Your task to perform on an android device: toggle translation in the chrome app Image 0: 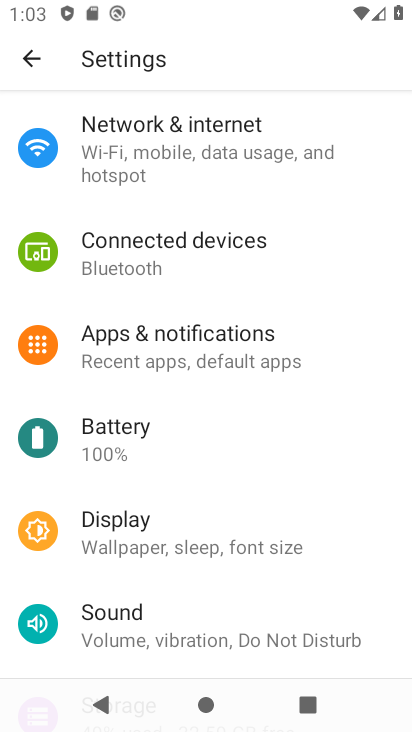
Step 0: press home button
Your task to perform on an android device: toggle translation in the chrome app Image 1: 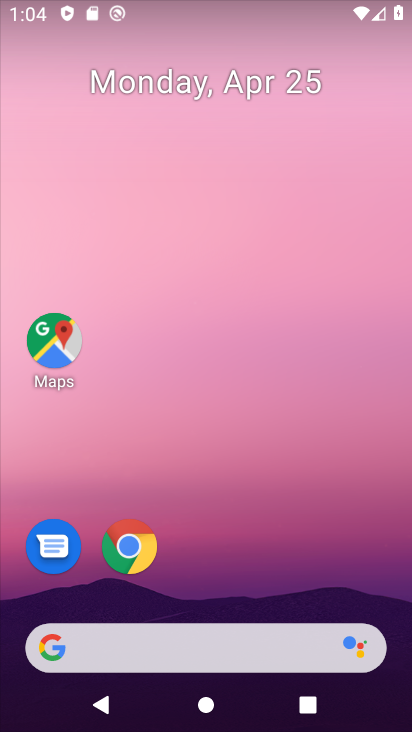
Step 1: drag from (182, 607) to (253, 23)
Your task to perform on an android device: toggle translation in the chrome app Image 2: 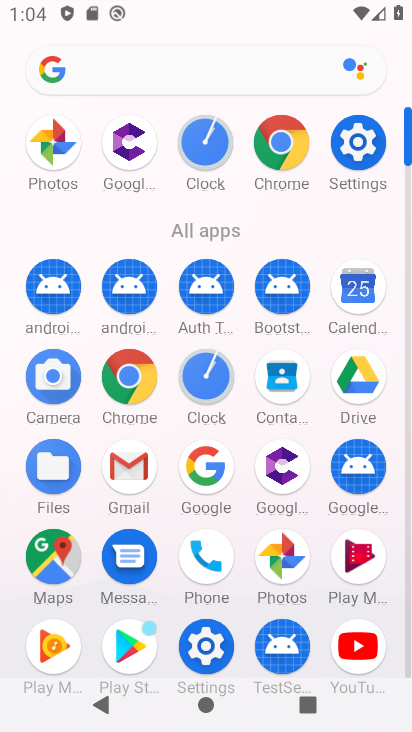
Step 2: click (137, 375)
Your task to perform on an android device: toggle translation in the chrome app Image 3: 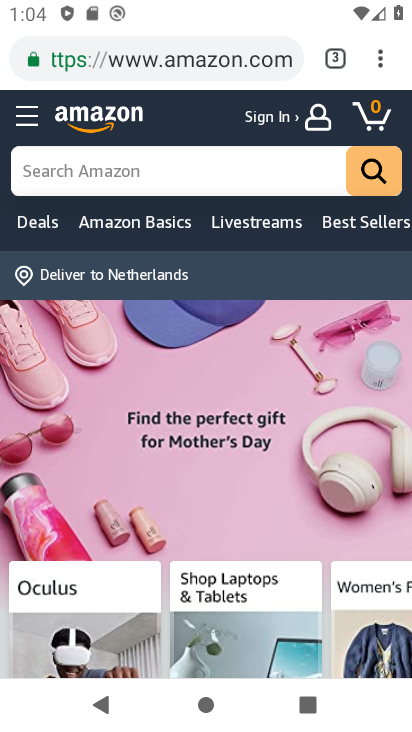
Step 3: drag from (384, 44) to (197, 583)
Your task to perform on an android device: toggle translation in the chrome app Image 4: 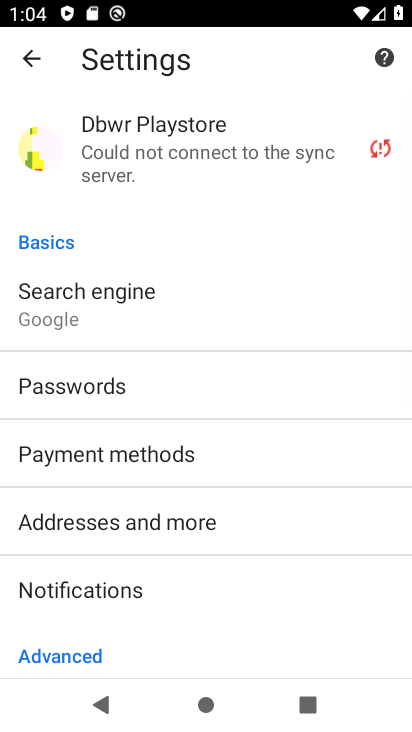
Step 4: drag from (148, 576) to (144, 18)
Your task to perform on an android device: toggle translation in the chrome app Image 5: 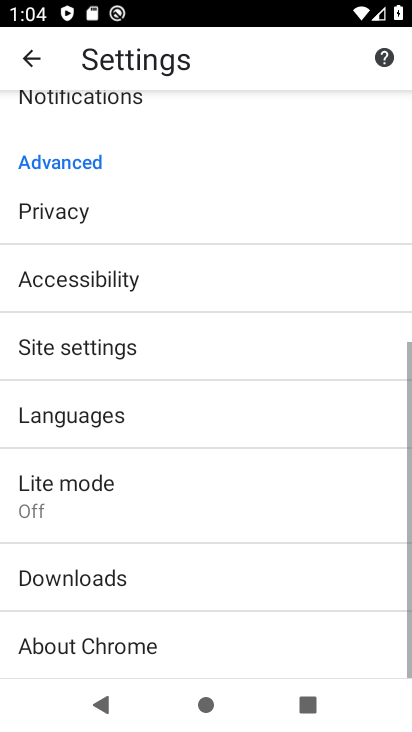
Step 5: click (72, 404)
Your task to perform on an android device: toggle translation in the chrome app Image 6: 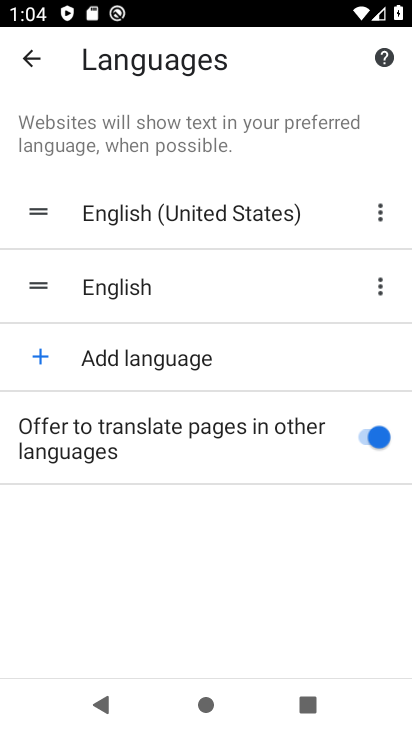
Step 6: click (371, 437)
Your task to perform on an android device: toggle translation in the chrome app Image 7: 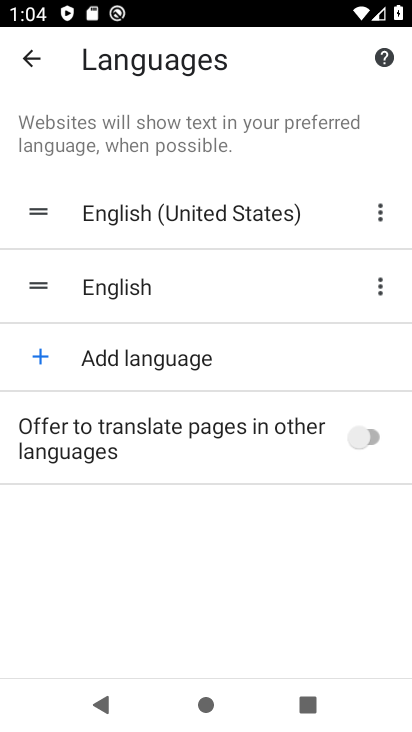
Step 7: task complete